Your task to perform on an android device: allow notifications from all sites in the chrome app Image 0: 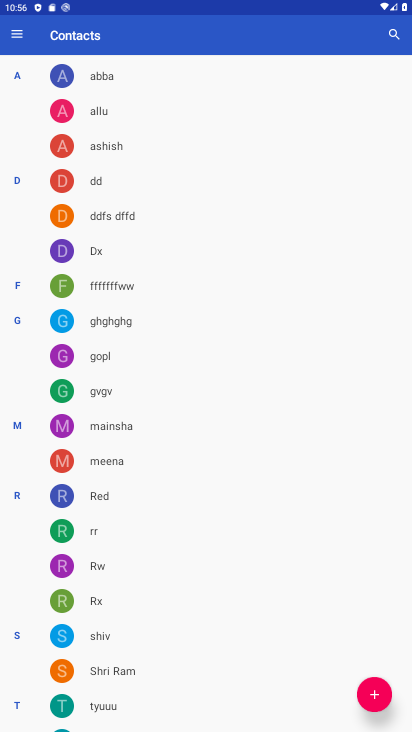
Step 0: press home button
Your task to perform on an android device: allow notifications from all sites in the chrome app Image 1: 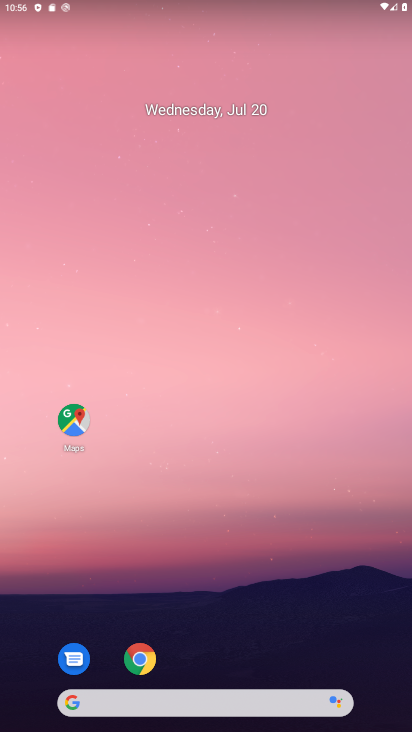
Step 1: click (139, 654)
Your task to perform on an android device: allow notifications from all sites in the chrome app Image 2: 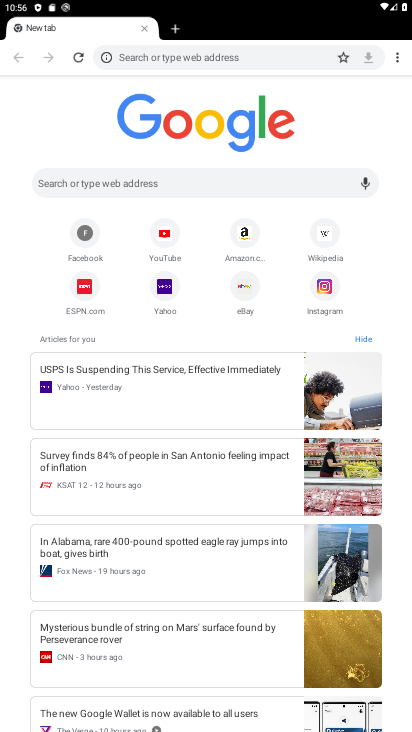
Step 2: click (397, 58)
Your task to perform on an android device: allow notifications from all sites in the chrome app Image 3: 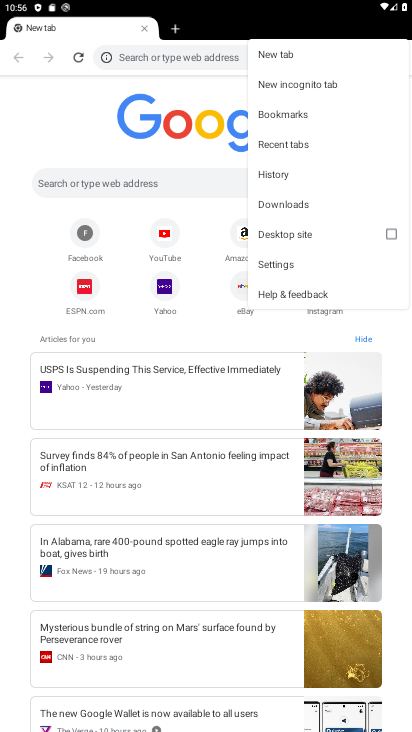
Step 3: click (280, 264)
Your task to perform on an android device: allow notifications from all sites in the chrome app Image 4: 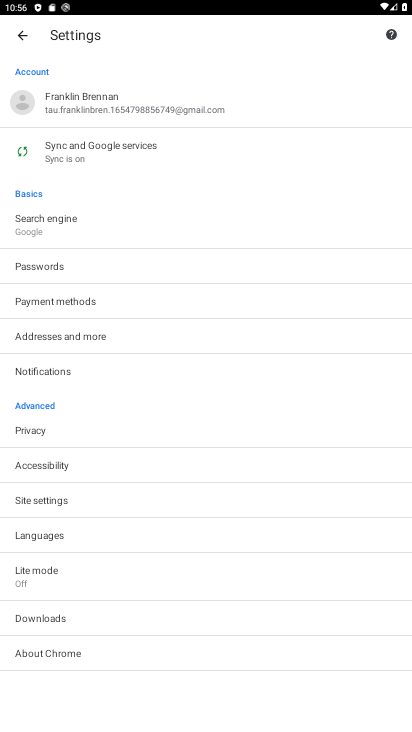
Step 4: click (52, 367)
Your task to perform on an android device: allow notifications from all sites in the chrome app Image 5: 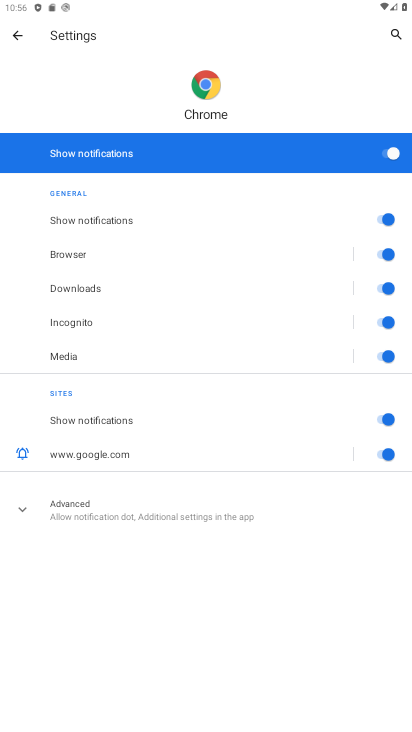
Step 5: task complete